Your task to perform on an android device: Open notification settings Image 0: 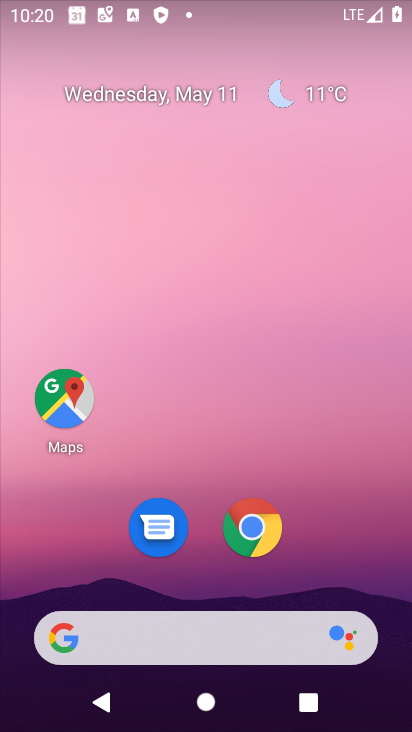
Step 0: drag from (354, 448) to (342, 1)
Your task to perform on an android device: Open notification settings Image 1: 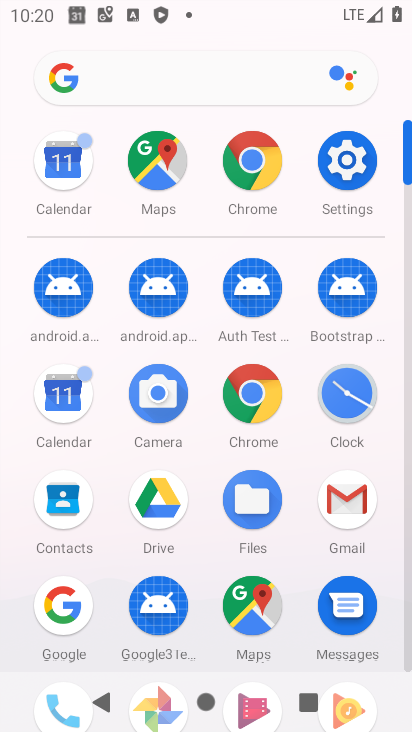
Step 1: click (335, 177)
Your task to perform on an android device: Open notification settings Image 2: 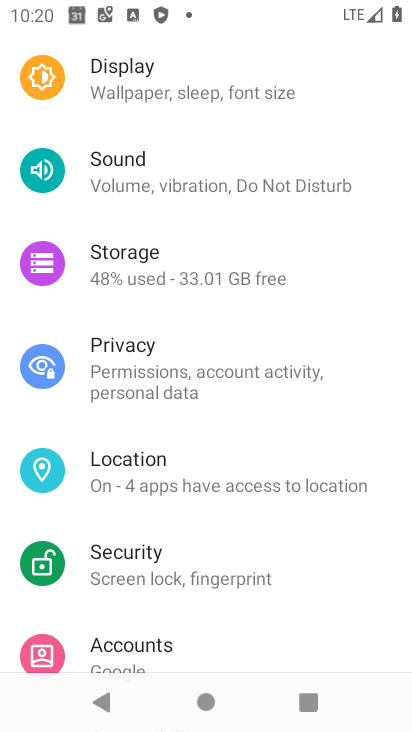
Step 2: drag from (240, 139) to (187, 638)
Your task to perform on an android device: Open notification settings Image 3: 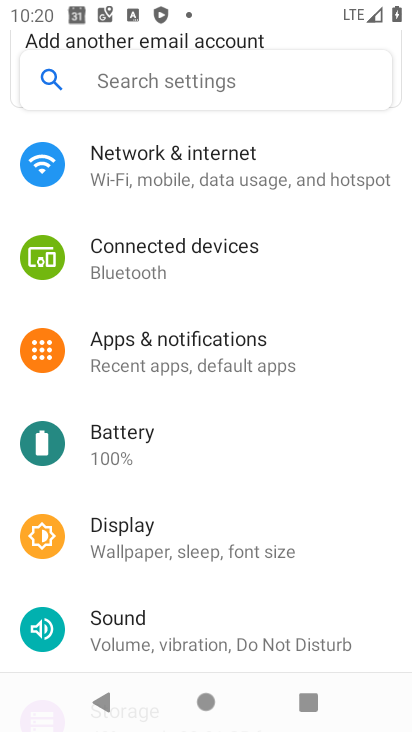
Step 3: click (177, 361)
Your task to perform on an android device: Open notification settings Image 4: 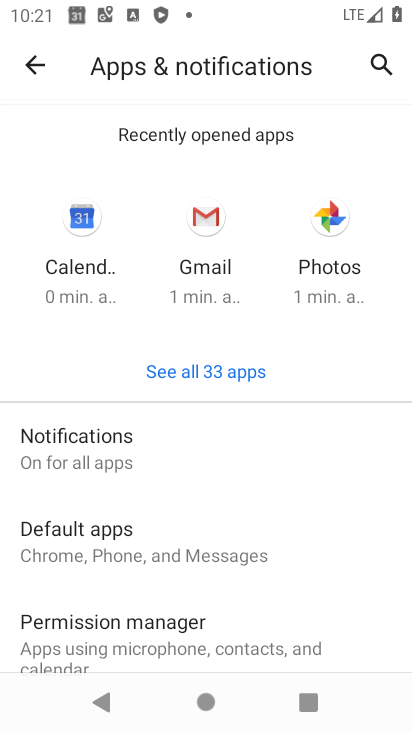
Step 4: click (69, 456)
Your task to perform on an android device: Open notification settings Image 5: 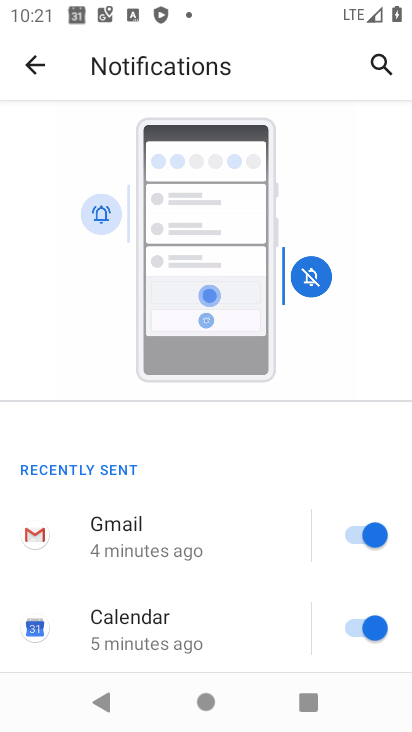
Step 5: task complete